Your task to perform on an android device: turn off wifi Image 0: 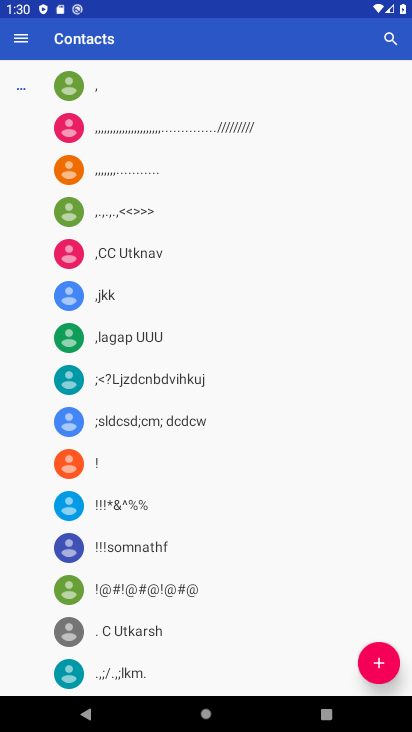
Step 0: press home button
Your task to perform on an android device: turn off wifi Image 1: 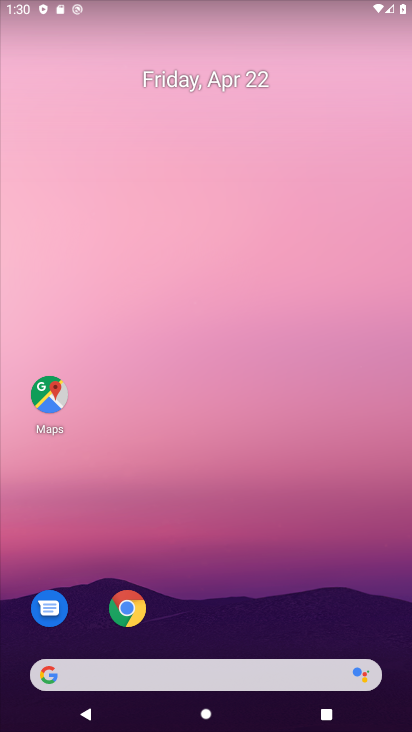
Step 1: drag from (275, 691) to (259, 134)
Your task to perform on an android device: turn off wifi Image 2: 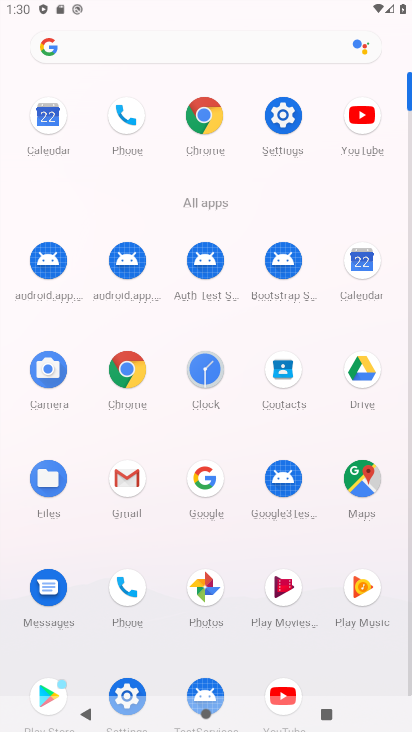
Step 2: click (287, 130)
Your task to perform on an android device: turn off wifi Image 3: 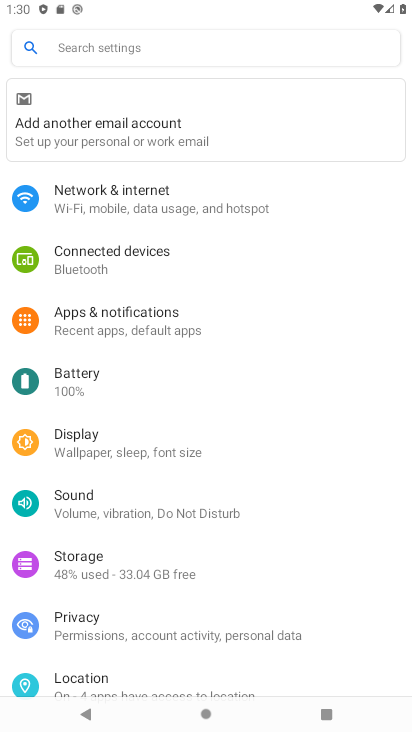
Step 3: click (137, 189)
Your task to perform on an android device: turn off wifi Image 4: 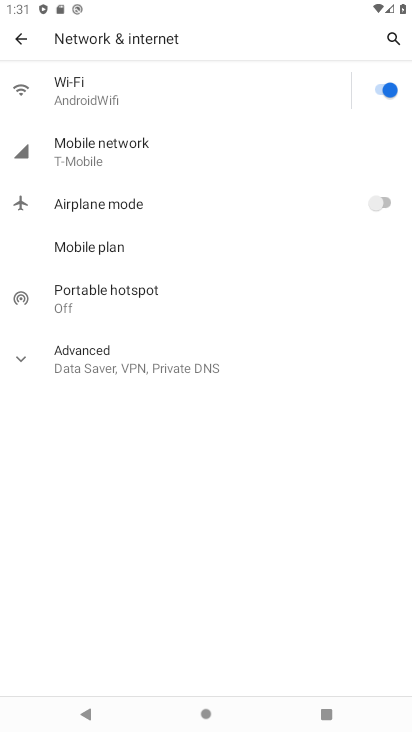
Step 4: click (117, 81)
Your task to perform on an android device: turn off wifi Image 5: 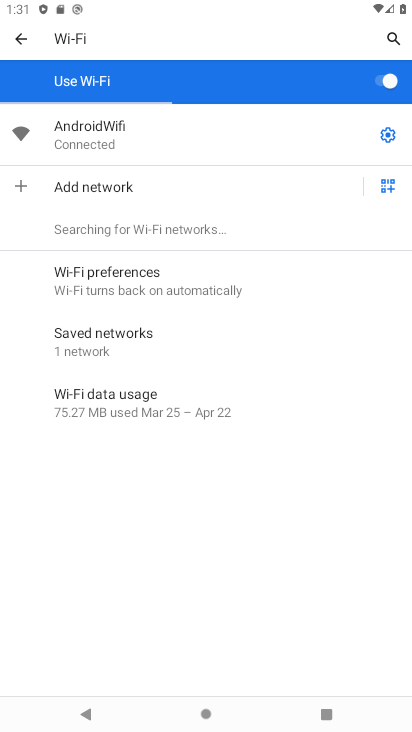
Step 5: click (369, 84)
Your task to perform on an android device: turn off wifi Image 6: 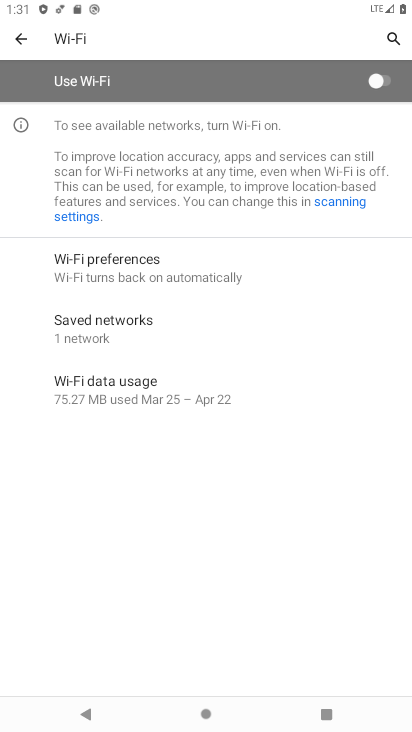
Step 6: task complete